Your task to perform on an android device: open device folders in google photos Image 0: 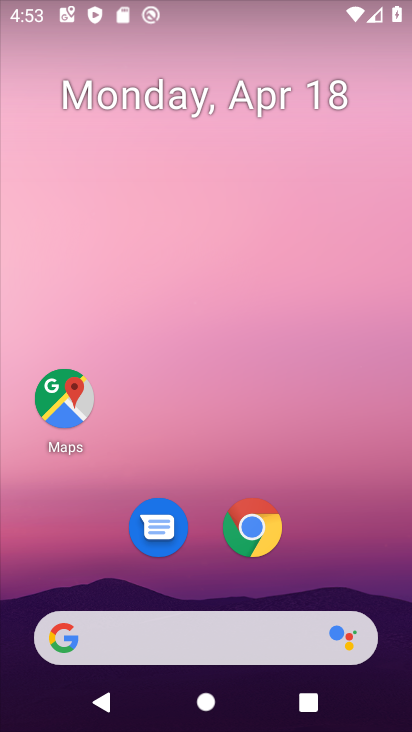
Step 0: drag from (233, 598) to (268, 192)
Your task to perform on an android device: open device folders in google photos Image 1: 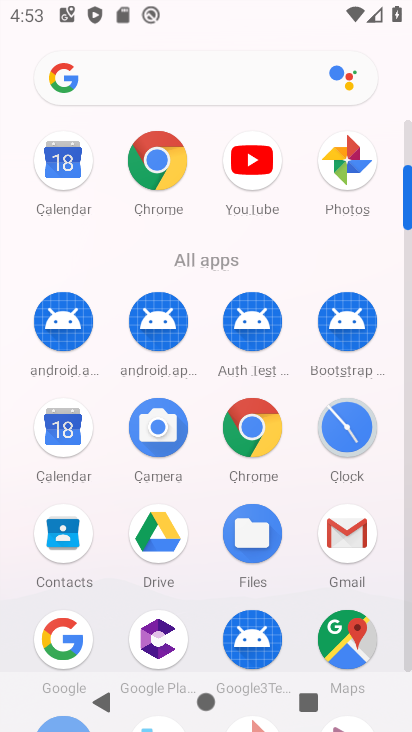
Step 1: click (355, 161)
Your task to perform on an android device: open device folders in google photos Image 2: 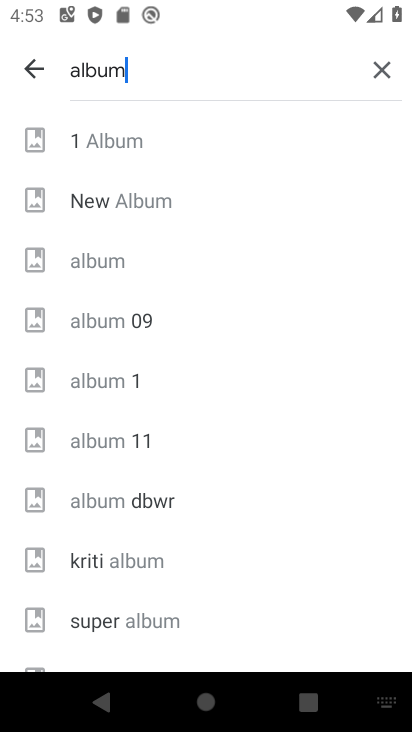
Step 2: click (32, 70)
Your task to perform on an android device: open device folders in google photos Image 3: 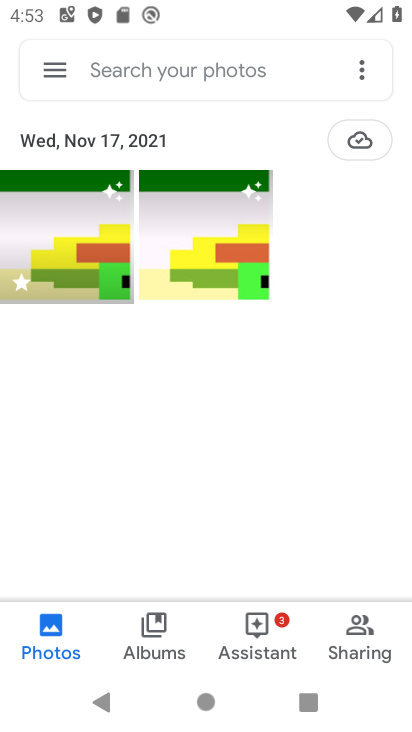
Step 3: click (56, 67)
Your task to perform on an android device: open device folders in google photos Image 4: 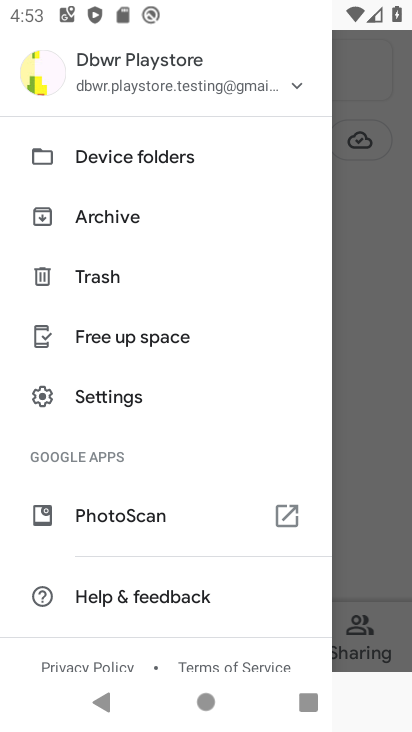
Step 4: click (124, 165)
Your task to perform on an android device: open device folders in google photos Image 5: 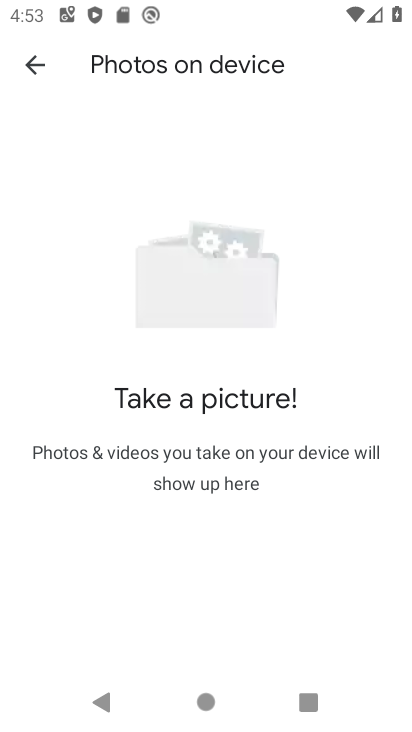
Step 5: task complete